Your task to perform on an android device: turn on the 12-hour format for clock Image 0: 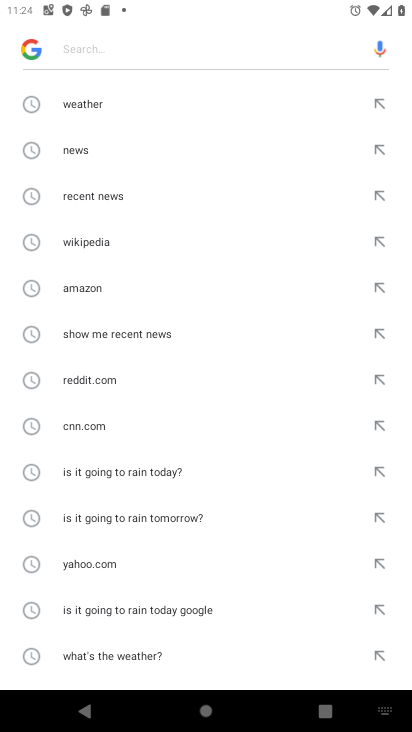
Step 0: press back button
Your task to perform on an android device: turn on the 12-hour format for clock Image 1: 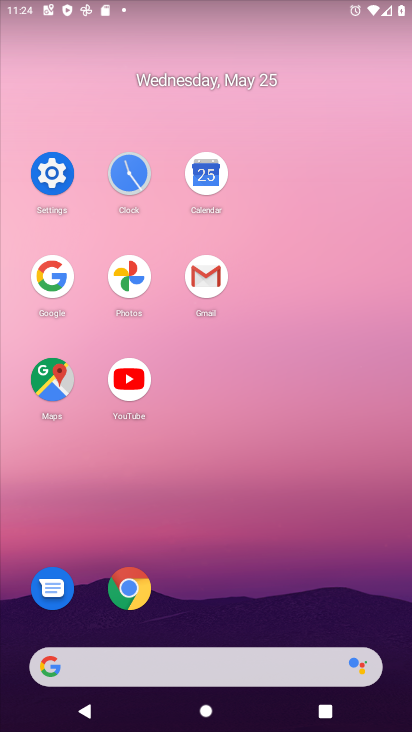
Step 1: click (126, 179)
Your task to perform on an android device: turn on the 12-hour format for clock Image 2: 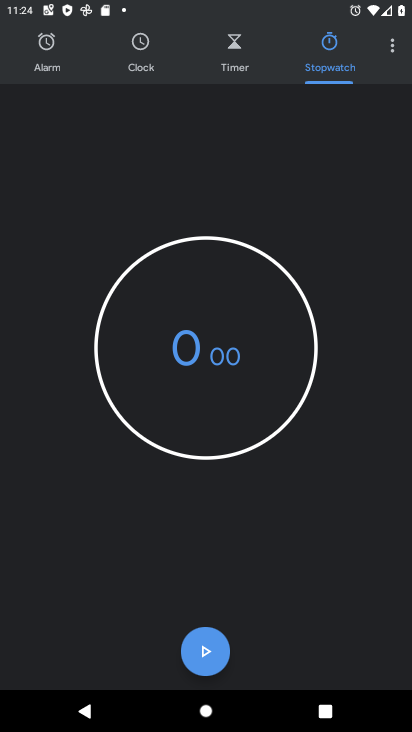
Step 2: click (383, 41)
Your task to perform on an android device: turn on the 12-hour format for clock Image 3: 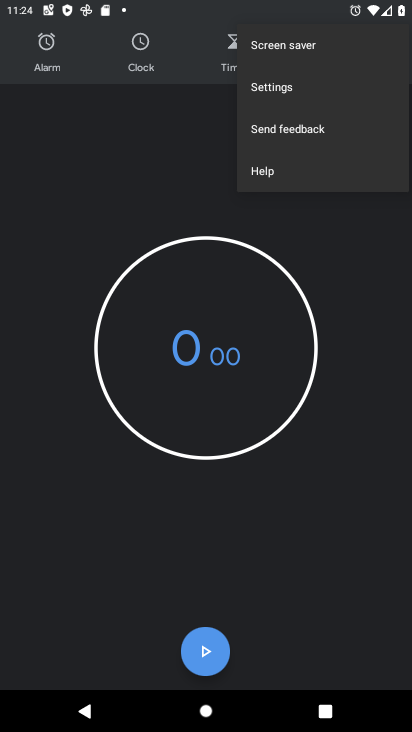
Step 3: click (327, 94)
Your task to perform on an android device: turn on the 12-hour format for clock Image 4: 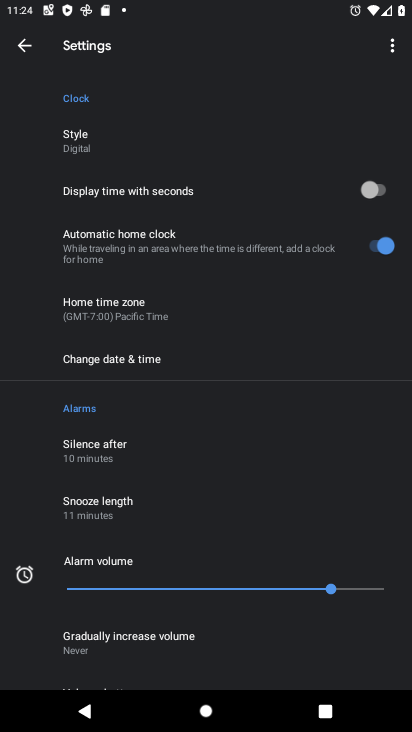
Step 4: click (133, 366)
Your task to perform on an android device: turn on the 12-hour format for clock Image 5: 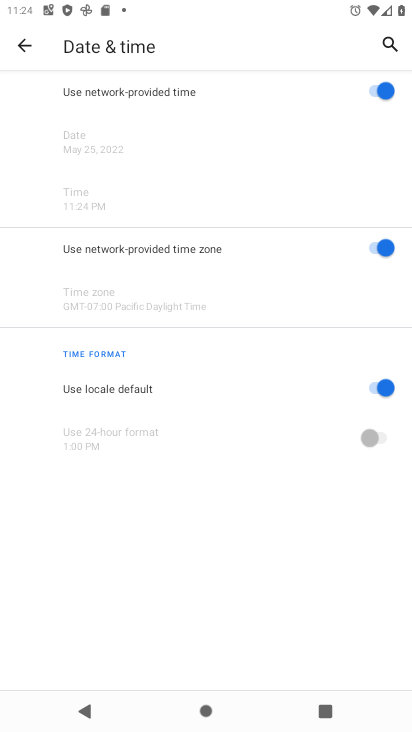
Step 5: task complete